Your task to perform on an android device: set the timer Image 0: 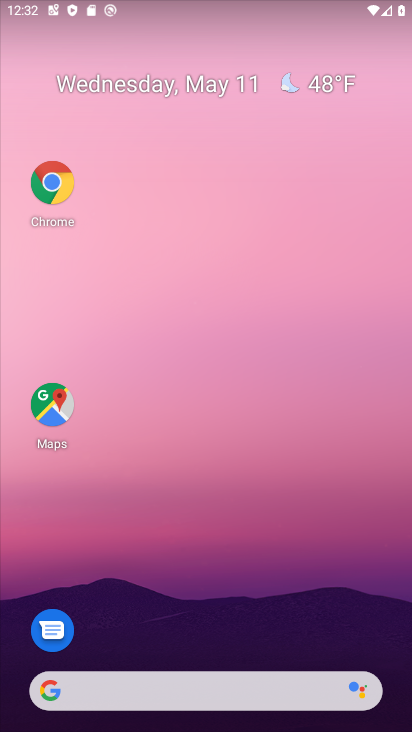
Step 0: drag from (244, 647) to (154, 30)
Your task to perform on an android device: set the timer Image 1: 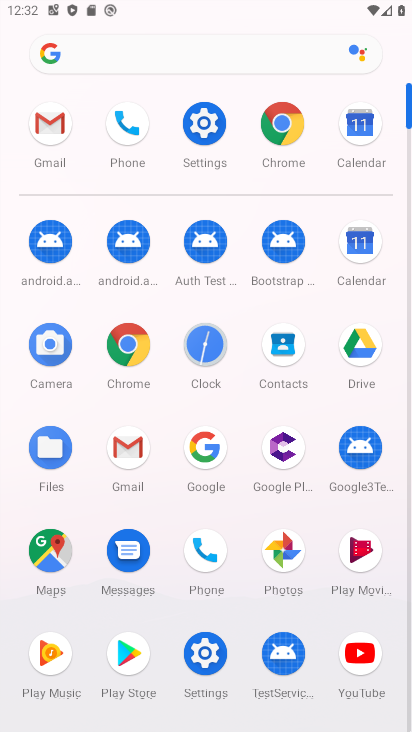
Step 1: click (196, 355)
Your task to perform on an android device: set the timer Image 2: 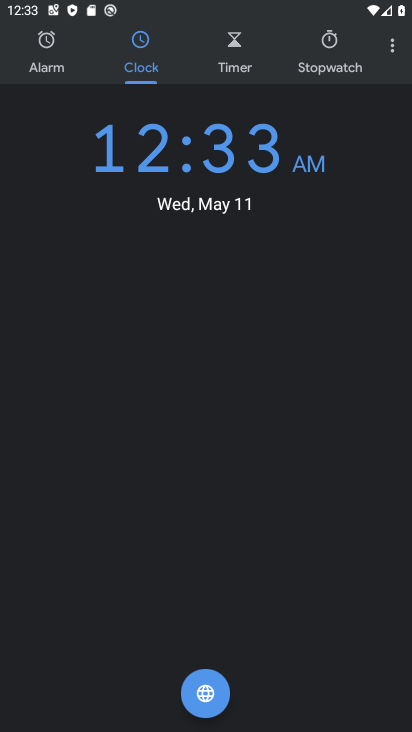
Step 2: click (230, 53)
Your task to perform on an android device: set the timer Image 3: 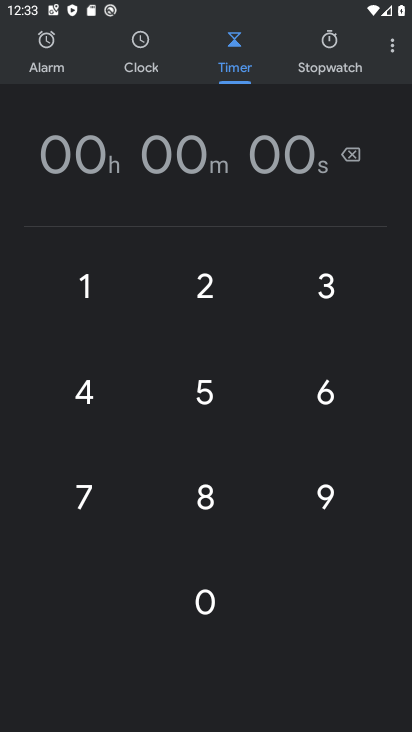
Step 3: click (177, 502)
Your task to perform on an android device: set the timer Image 4: 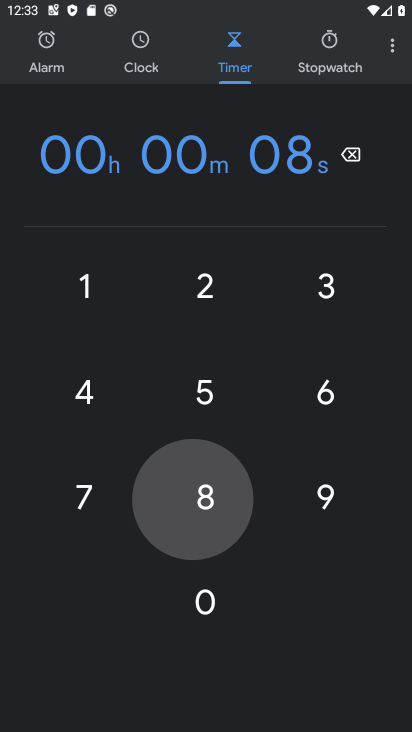
Step 4: click (186, 584)
Your task to perform on an android device: set the timer Image 5: 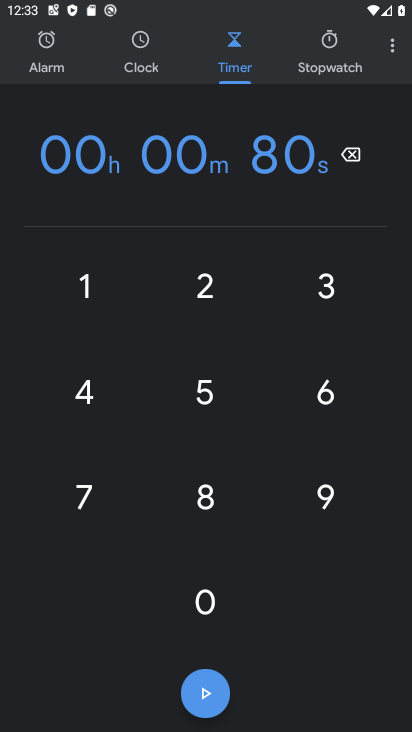
Step 5: task complete